Your task to perform on an android device: Open display settings Image 0: 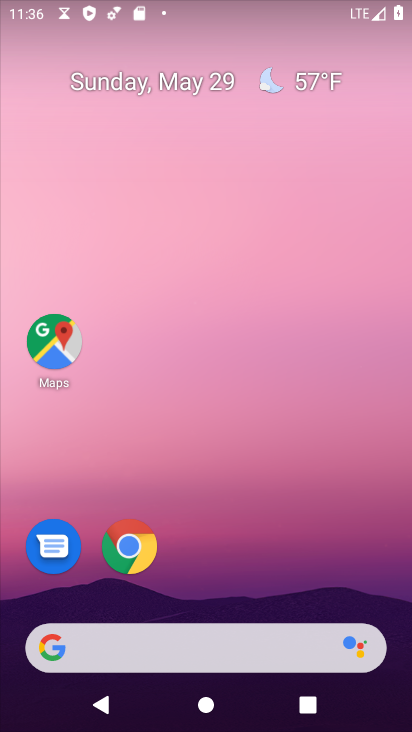
Step 0: drag from (190, 594) to (315, 122)
Your task to perform on an android device: Open display settings Image 1: 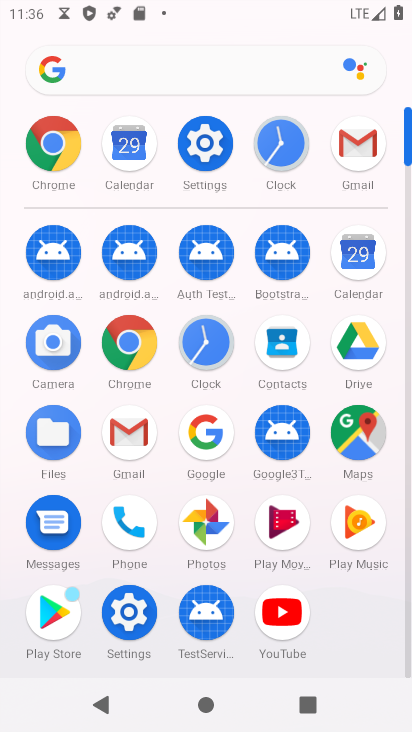
Step 1: click (216, 139)
Your task to perform on an android device: Open display settings Image 2: 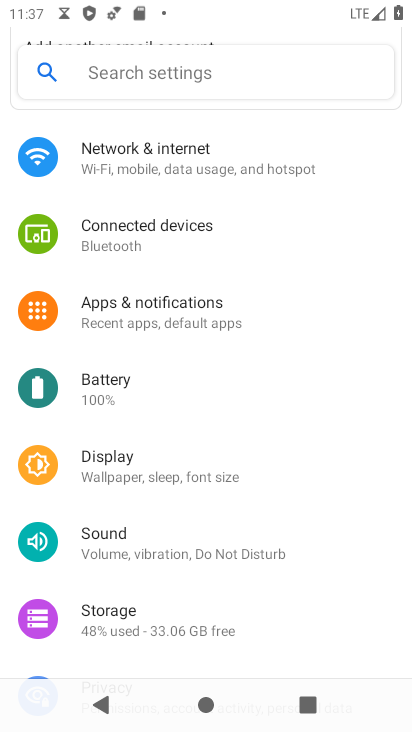
Step 2: click (108, 468)
Your task to perform on an android device: Open display settings Image 3: 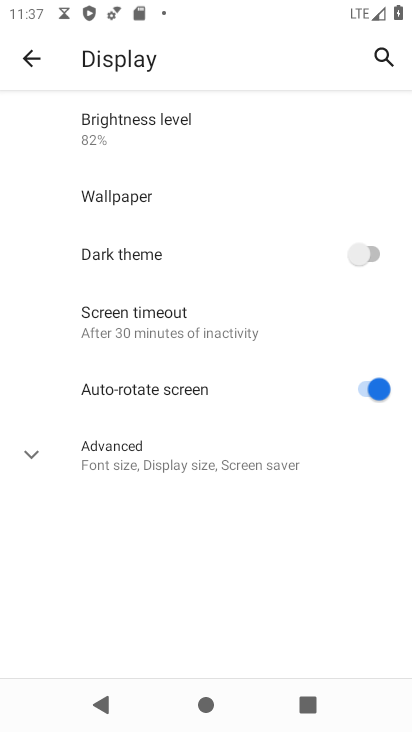
Step 3: task complete